Your task to perform on an android device: toggle notifications settings in the gmail app Image 0: 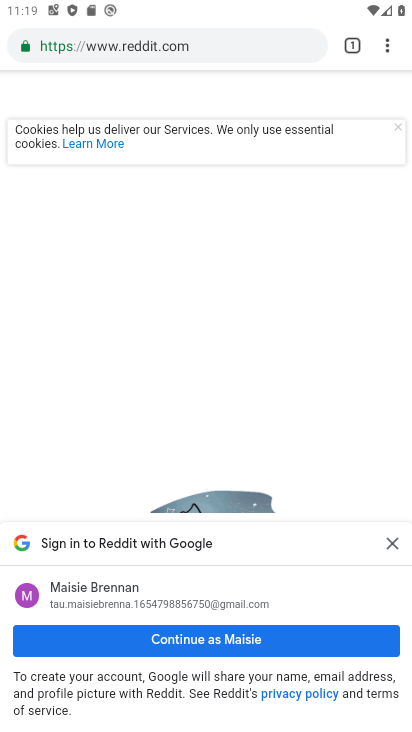
Step 0: press home button
Your task to perform on an android device: toggle notifications settings in the gmail app Image 1: 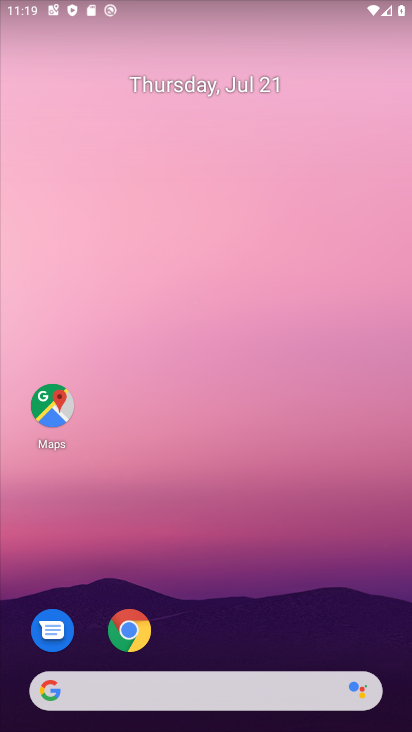
Step 1: drag from (242, 643) to (166, 155)
Your task to perform on an android device: toggle notifications settings in the gmail app Image 2: 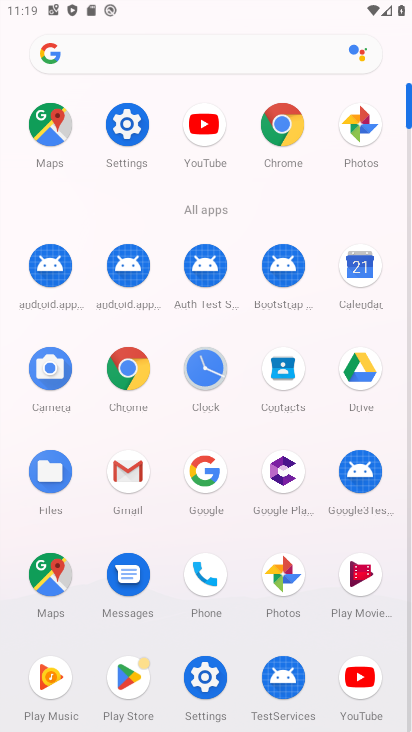
Step 2: click (127, 468)
Your task to perform on an android device: toggle notifications settings in the gmail app Image 3: 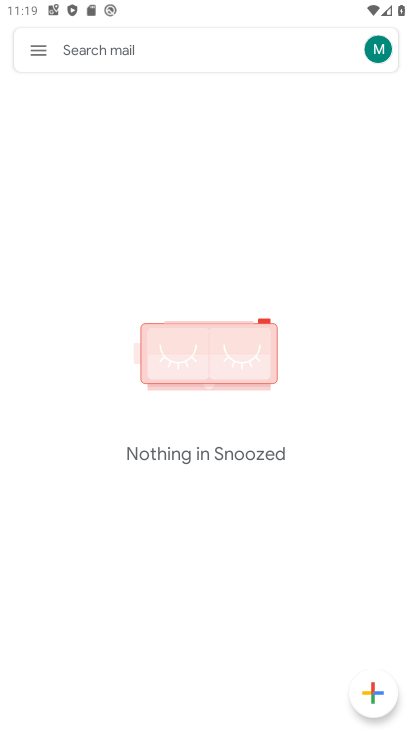
Step 3: click (43, 55)
Your task to perform on an android device: toggle notifications settings in the gmail app Image 4: 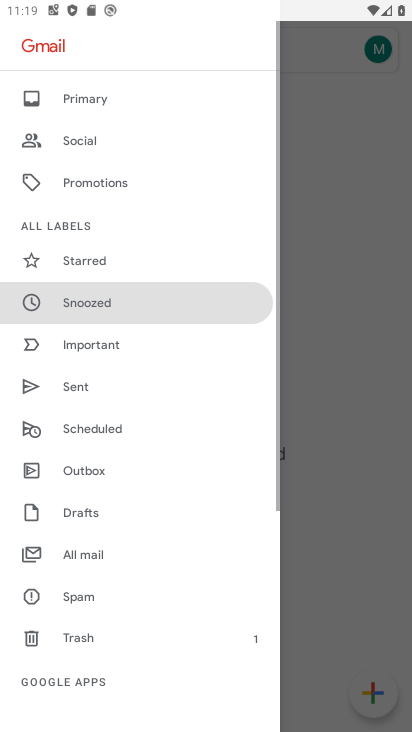
Step 4: drag from (80, 582) to (90, 117)
Your task to perform on an android device: toggle notifications settings in the gmail app Image 5: 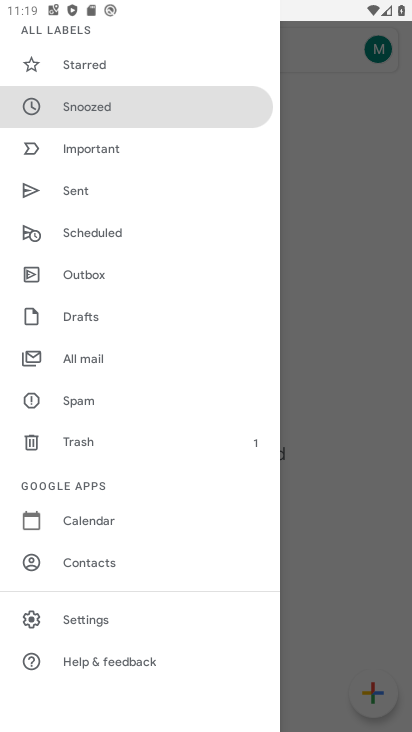
Step 5: click (97, 612)
Your task to perform on an android device: toggle notifications settings in the gmail app Image 6: 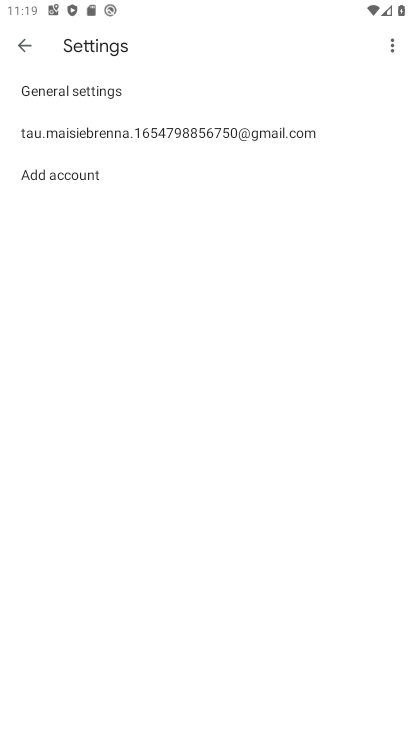
Step 6: click (60, 88)
Your task to perform on an android device: toggle notifications settings in the gmail app Image 7: 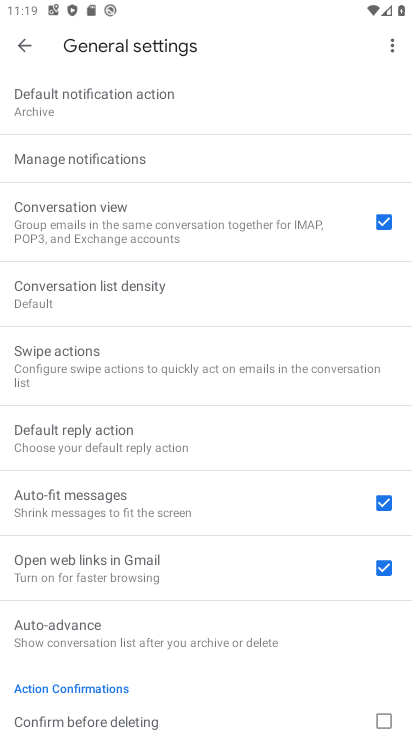
Step 7: click (191, 157)
Your task to perform on an android device: toggle notifications settings in the gmail app Image 8: 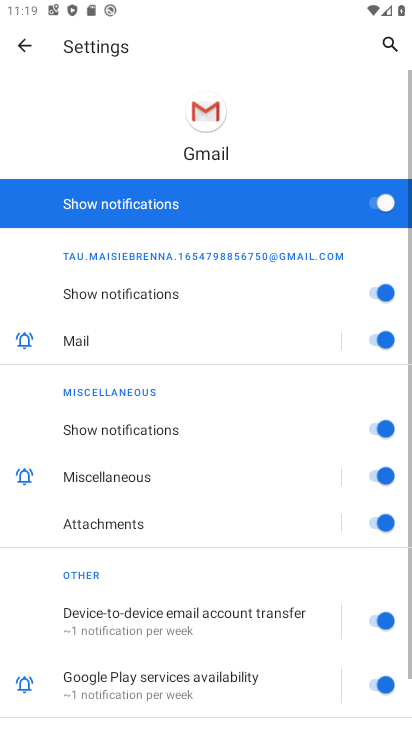
Step 8: click (384, 199)
Your task to perform on an android device: toggle notifications settings in the gmail app Image 9: 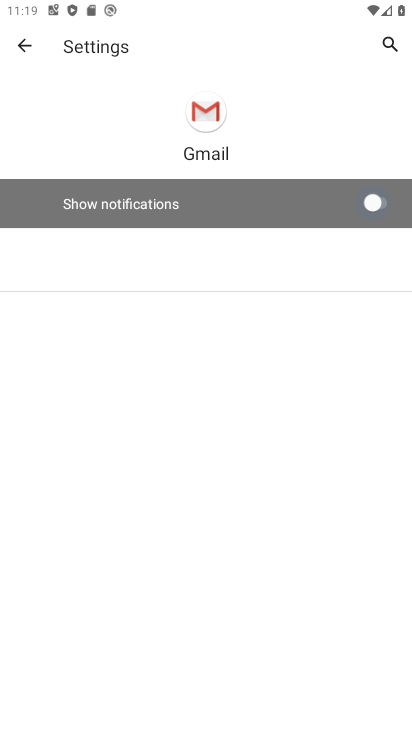
Step 9: task complete